Your task to perform on an android device: turn notification dots on Image 0: 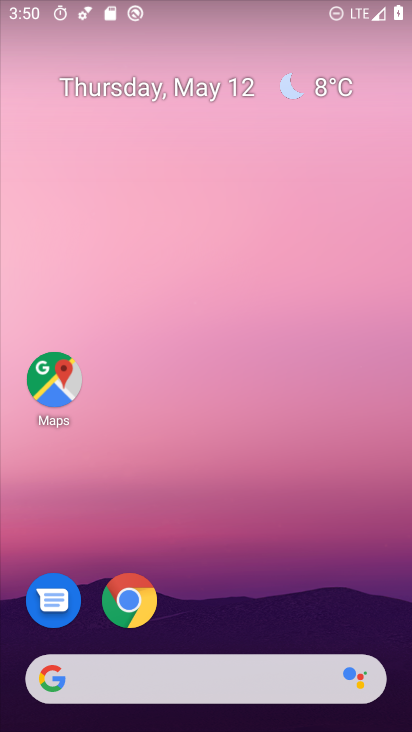
Step 0: drag from (221, 731) to (208, 110)
Your task to perform on an android device: turn notification dots on Image 1: 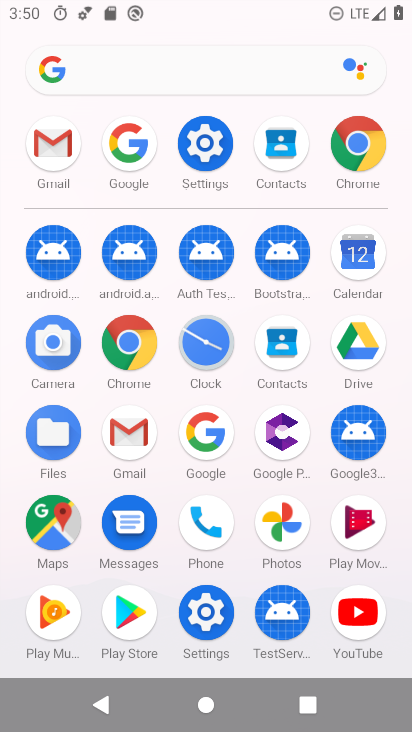
Step 1: click (207, 148)
Your task to perform on an android device: turn notification dots on Image 2: 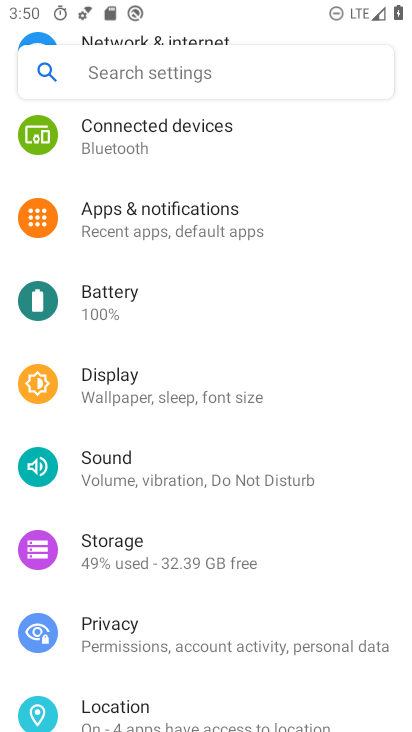
Step 2: click (178, 219)
Your task to perform on an android device: turn notification dots on Image 3: 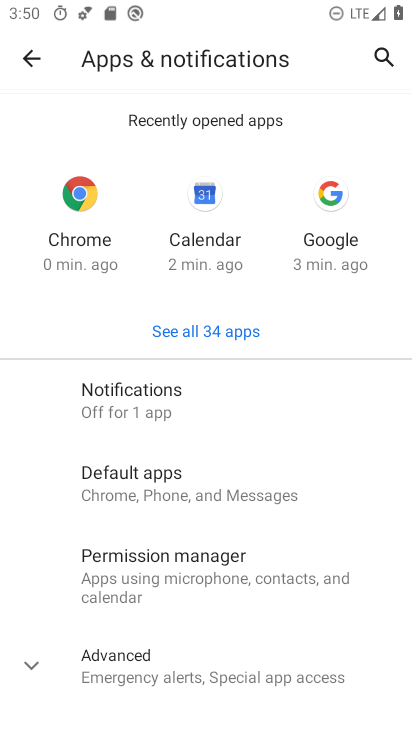
Step 3: click (163, 396)
Your task to perform on an android device: turn notification dots on Image 4: 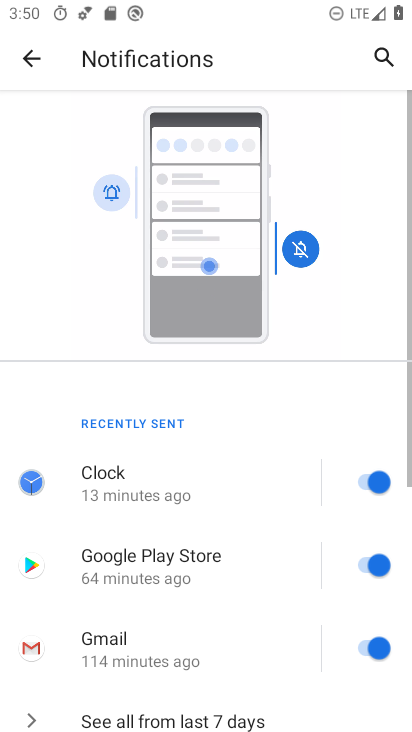
Step 4: drag from (193, 676) to (194, 256)
Your task to perform on an android device: turn notification dots on Image 5: 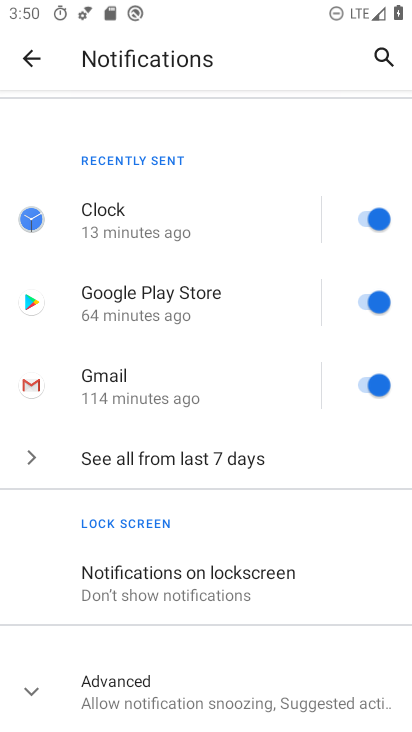
Step 5: click (133, 696)
Your task to perform on an android device: turn notification dots on Image 6: 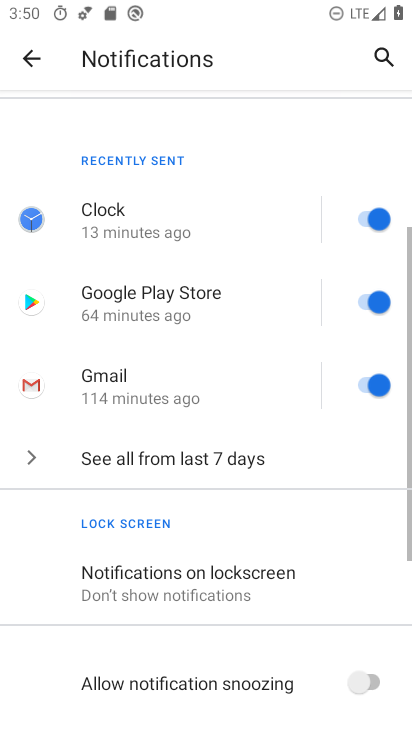
Step 6: drag from (194, 686) to (190, 253)
Your task to perform on an android device: turn notification dots on Image 7: 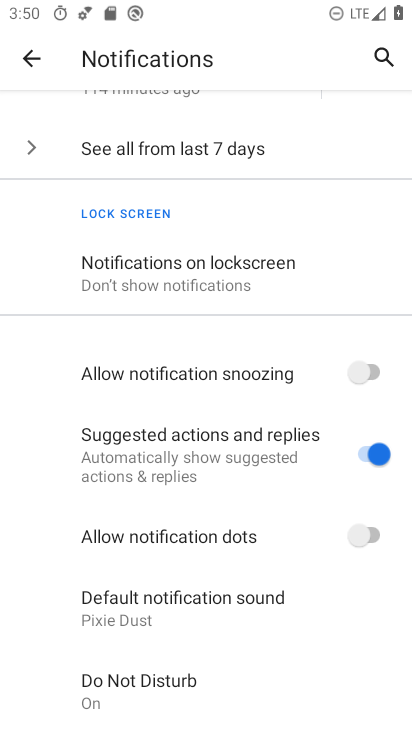
Step 7: click (368, 533)
Your task to perform on an android device: turn notification dots on Image 8: 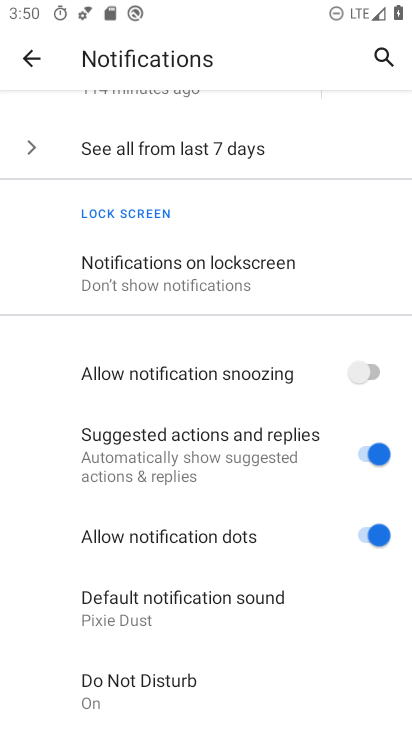
Step 8: task complete